Your task to perform on an android device: Open the stopwatch Image 0: 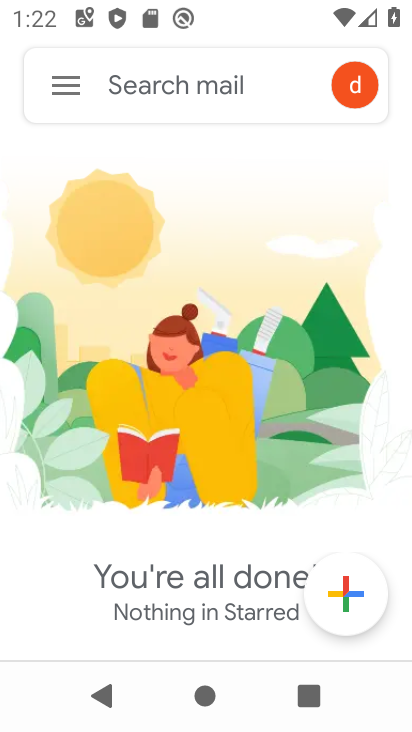
Step 0: press home button
Your task to perform on an android device: Open the stopwatch Image 1: 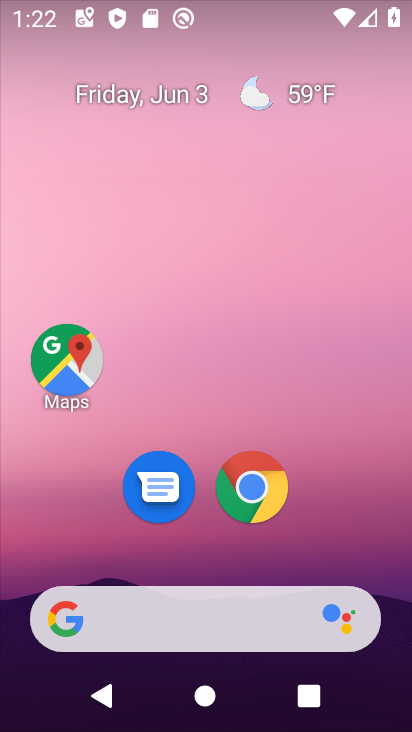
Step 1: drag from (312, 545) to (349, 62)
Your task to perform on an android device: Open the stopwatch Image 2: 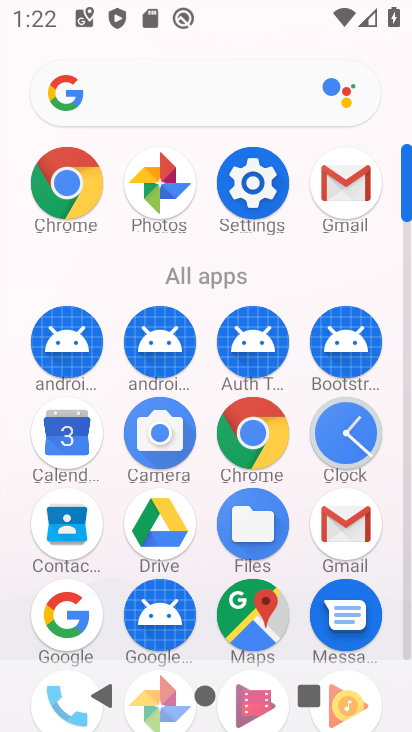
Step 2: click (340, 429)
Your task to perform on an android device: Open the stopwatch Image 3: 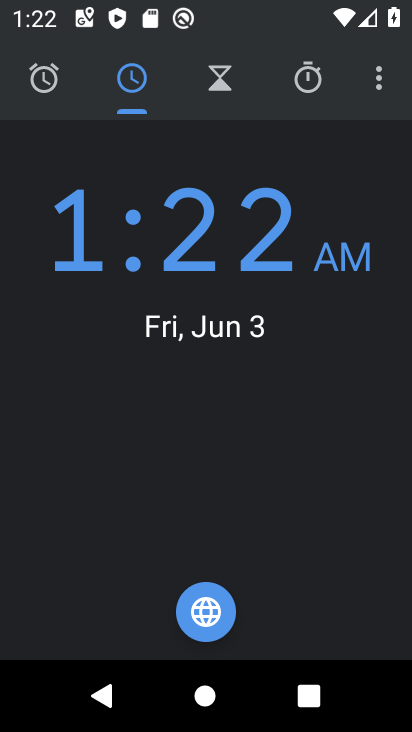
Step 3: click (308, 70)
Your task to perform on an android device: Open the stopwatch Image 4: 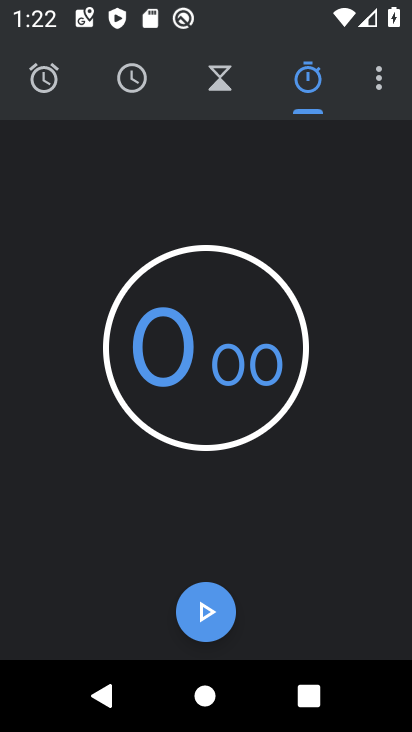
Step 4: click (202, 604)
Your task to perform on an android device: Open the stopwatch Image 5: 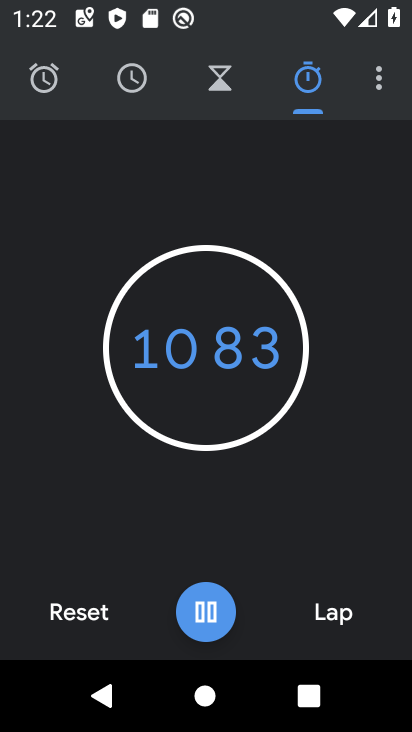
Step 5: task complete